Your task to perform on an android device: Open Yahoo.com Image 0: 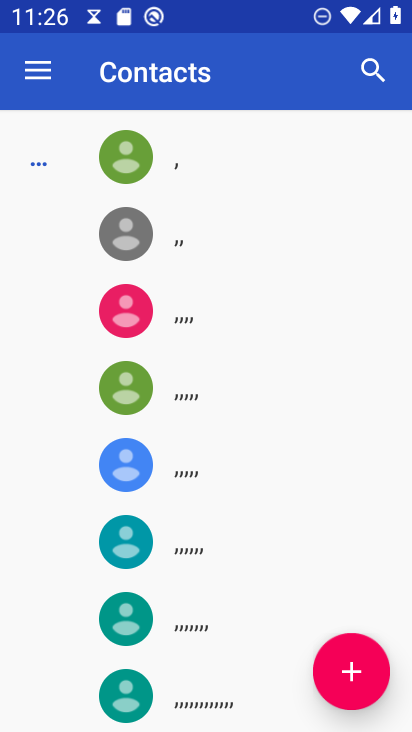
Step 0: press home button
Your task to perform on an android device: Open Yahoo.com Image 1: 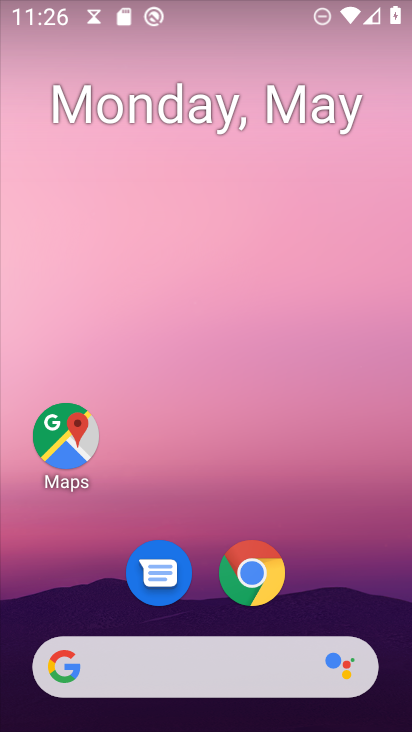
Step 1: drag from (343, 495) to (223, 29)
Your task to perform on an android device: Open Yahoo.com Image 2: 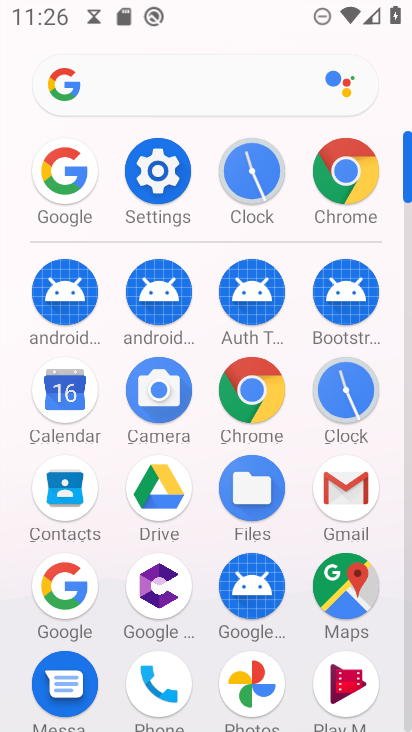
Step 2: click (345, 170)
Your task to perform on an android device: Open Yahoo.com Image 3: 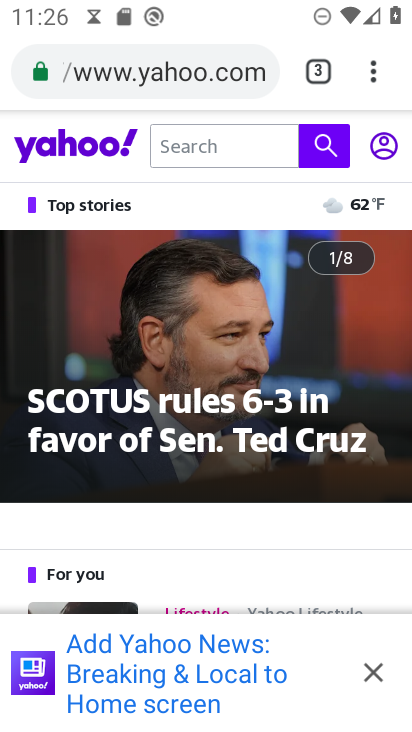
Step 3: task complete